Your task to perform on an android device: open the mobile data screen to see how much data has been used Image 0: 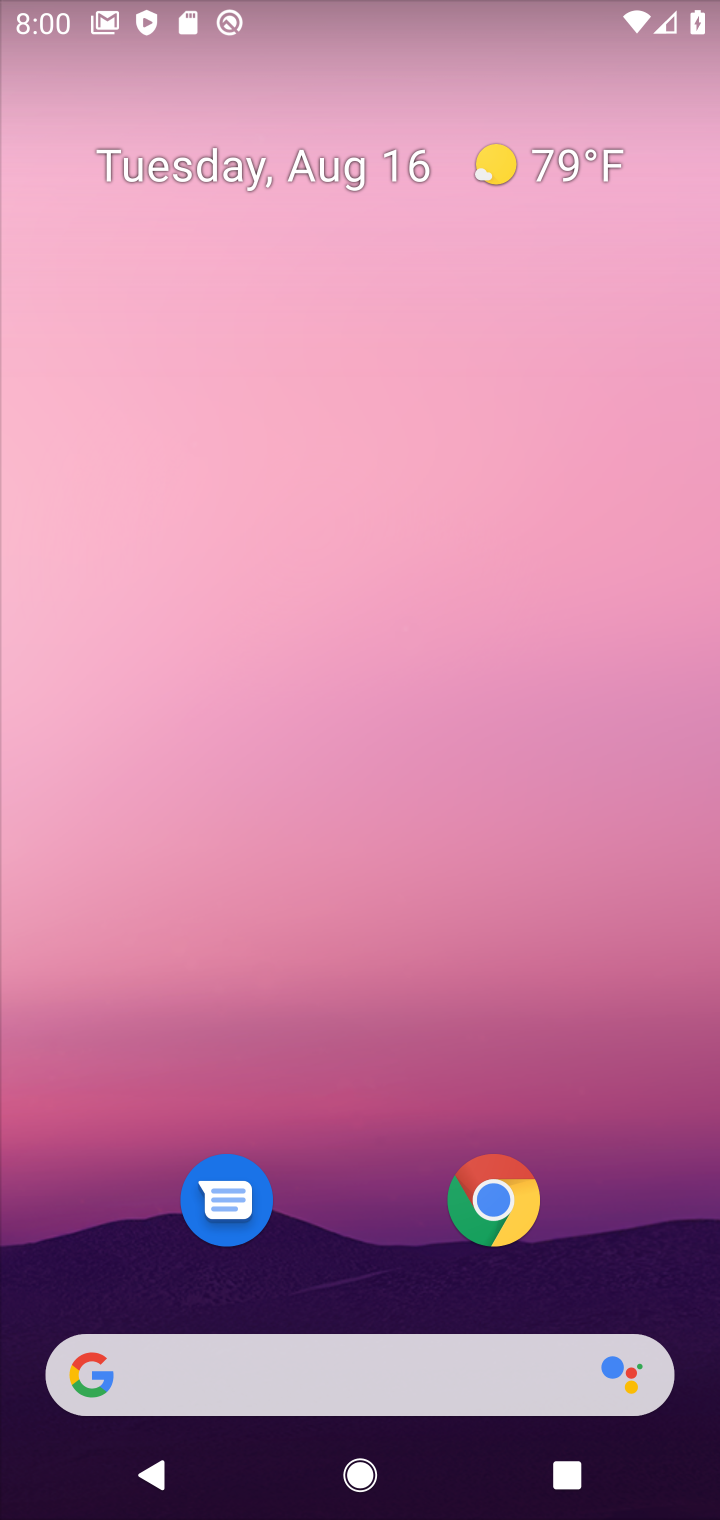
Step 0: drag from (684, 1279) to (615, 261)
Your task to perform on an android device: open the mobile data screen to see how much data has been used Image 1: 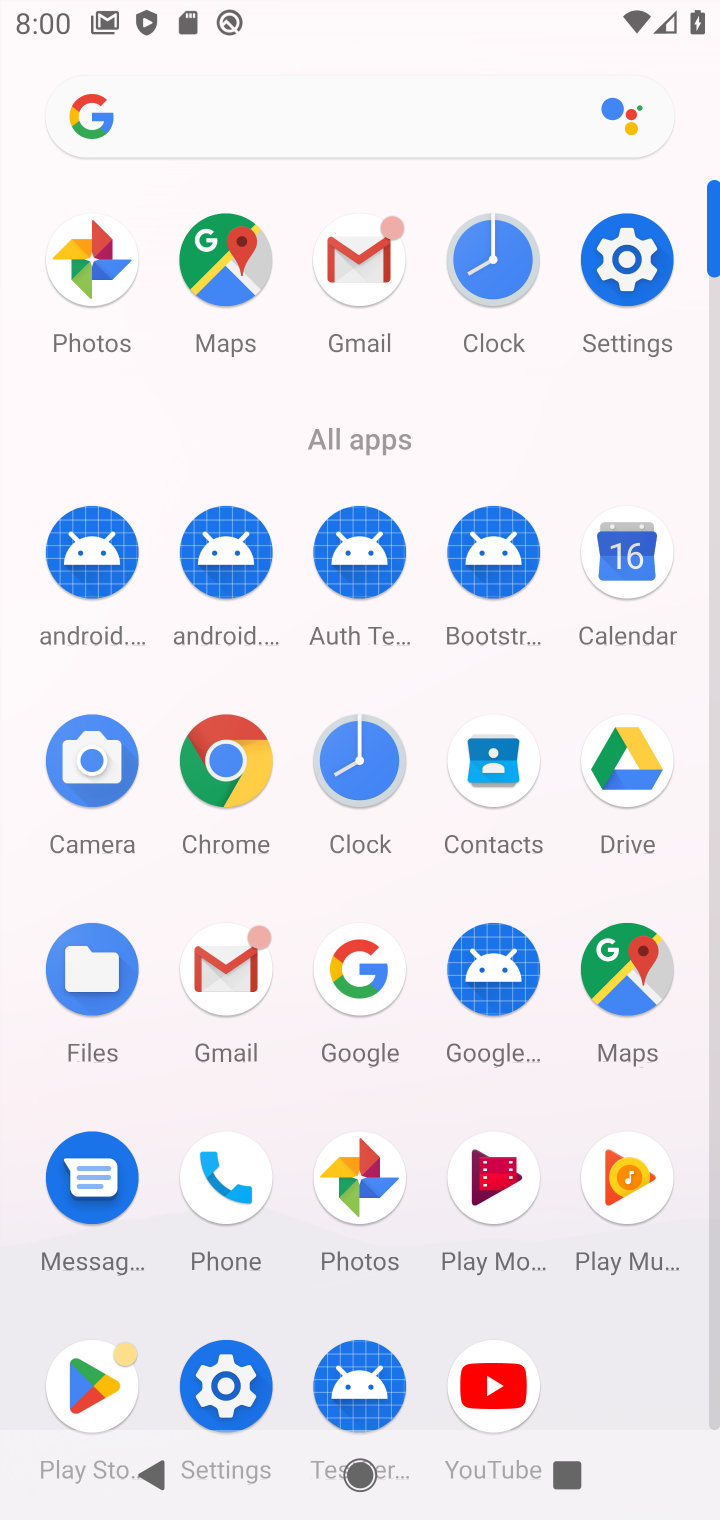
Step 1: click (218, 1386)
Your task to perform on an android device: open the mobile data screen to see how much data has been used Image 2: 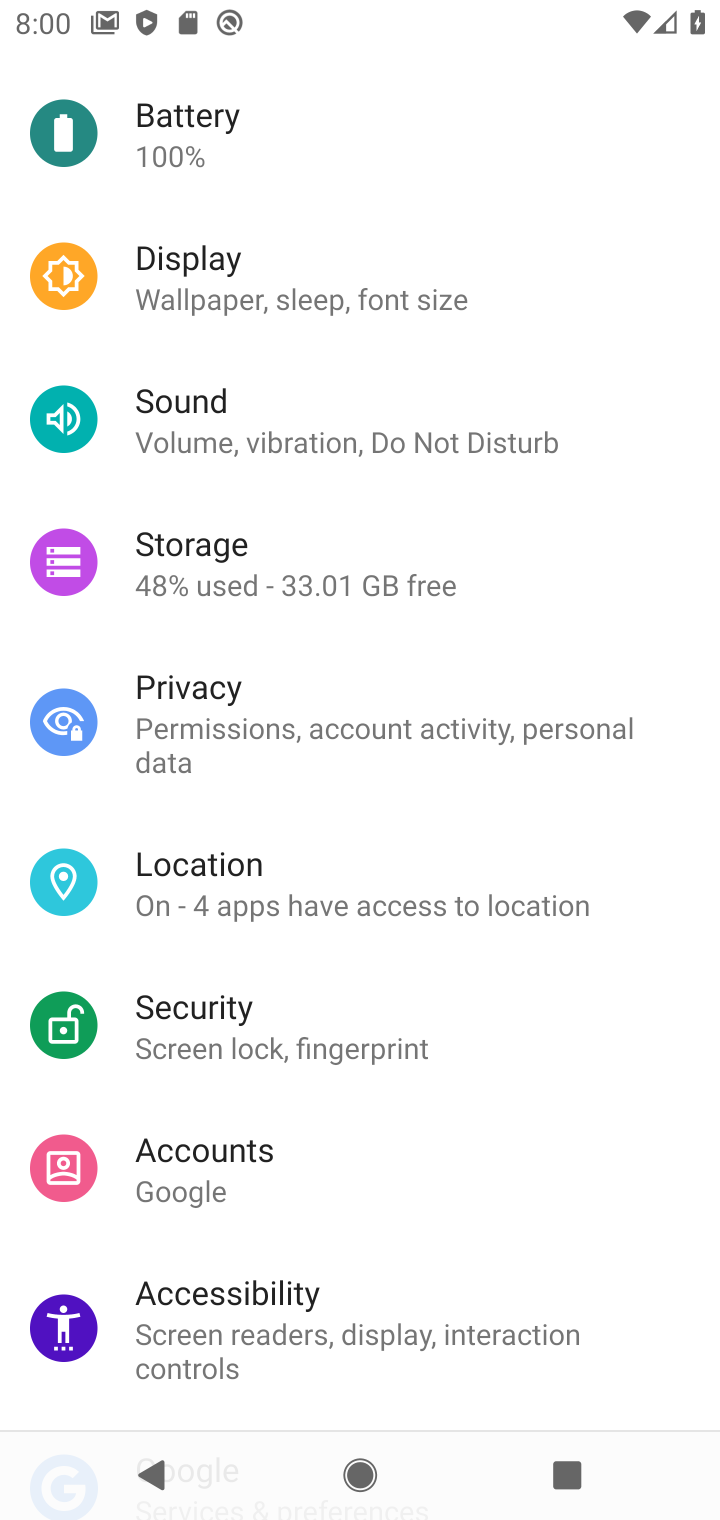
Step 2: drag from (583, 472) to (577, 1076)
Your task to perform on an android device: open the mobile data screen to see how much data has been used Image 3: 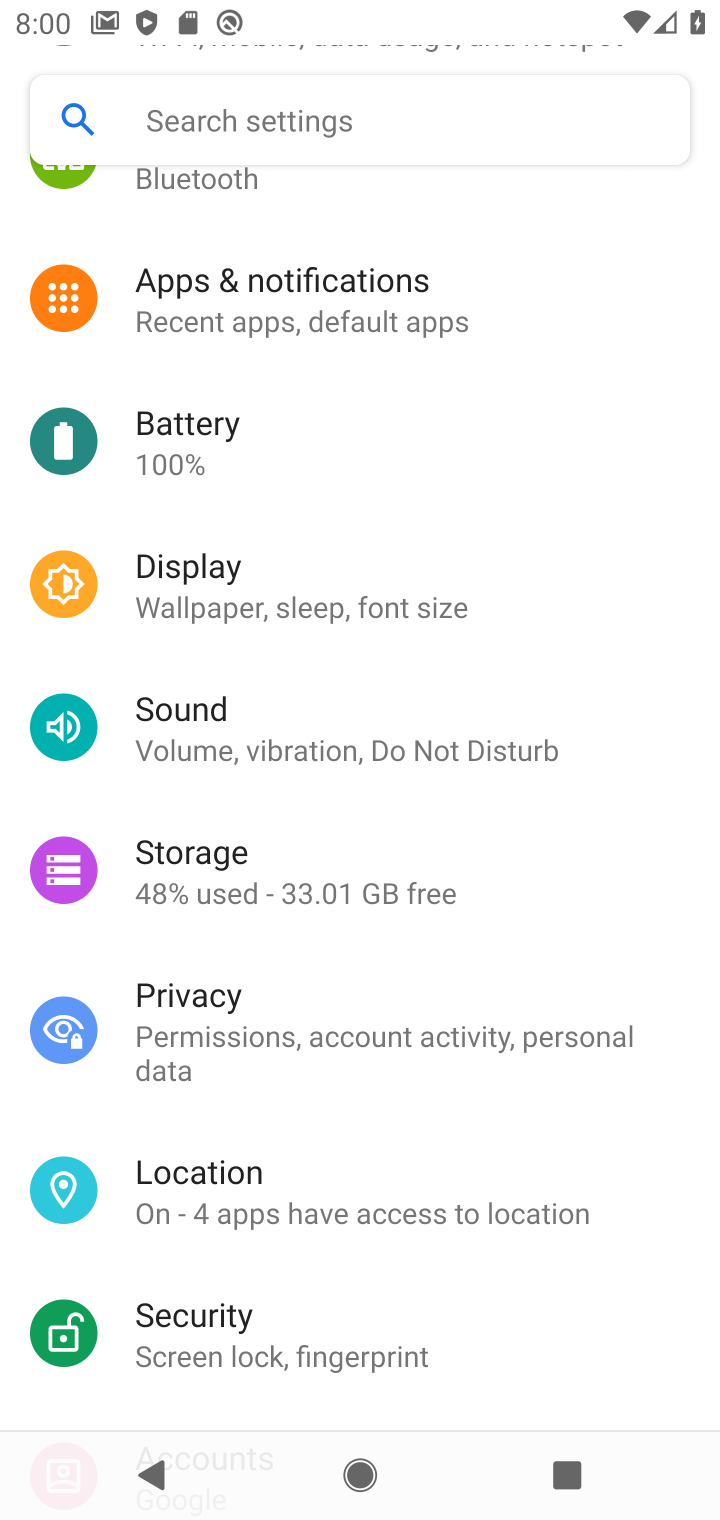
Step 3: drag from (538, 380) to (540, 1034)
Your task to perform on an android device: open the mobile data screen to see how much data has been used Image 4: 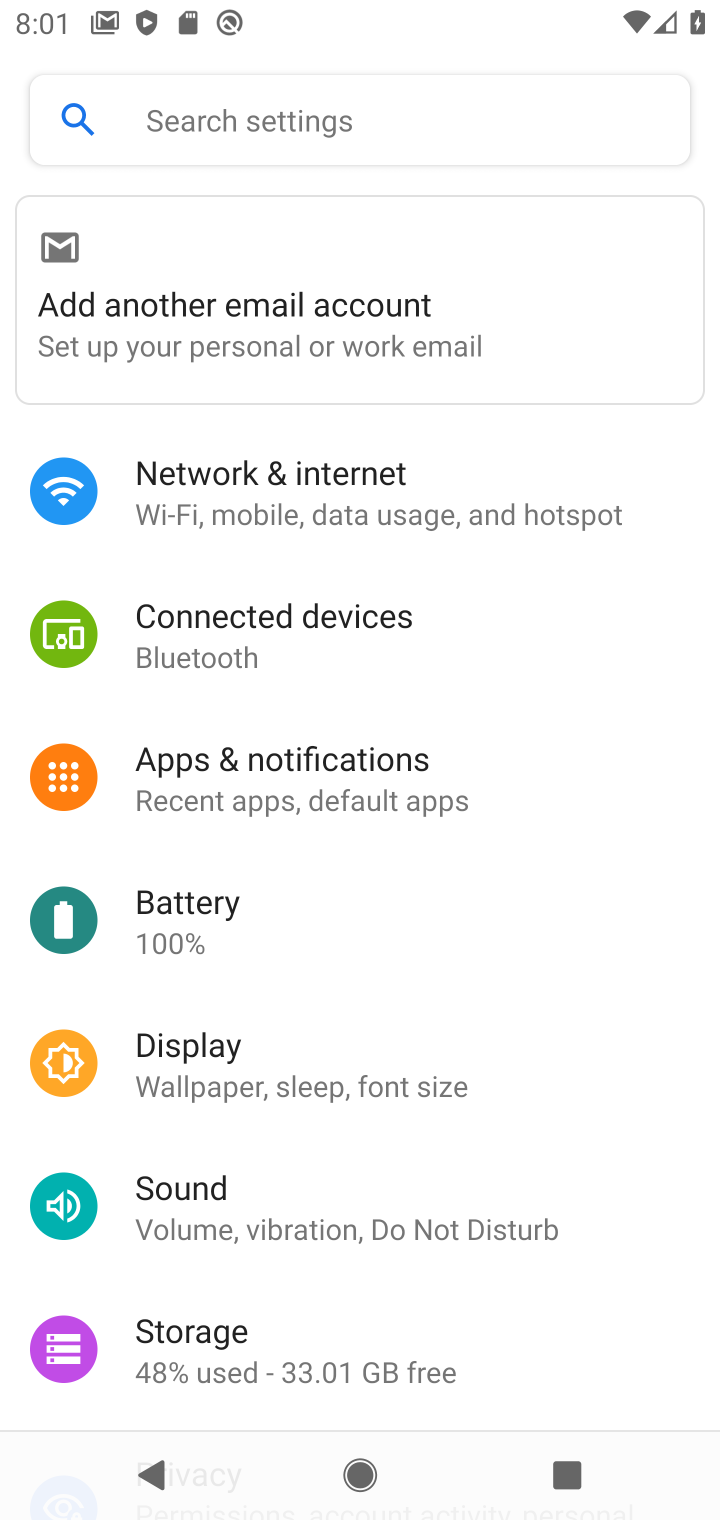
Step 4: click (219, 472)
Your task to perform on an android device: open the mobile data screen to see how much data has been used Image 5: 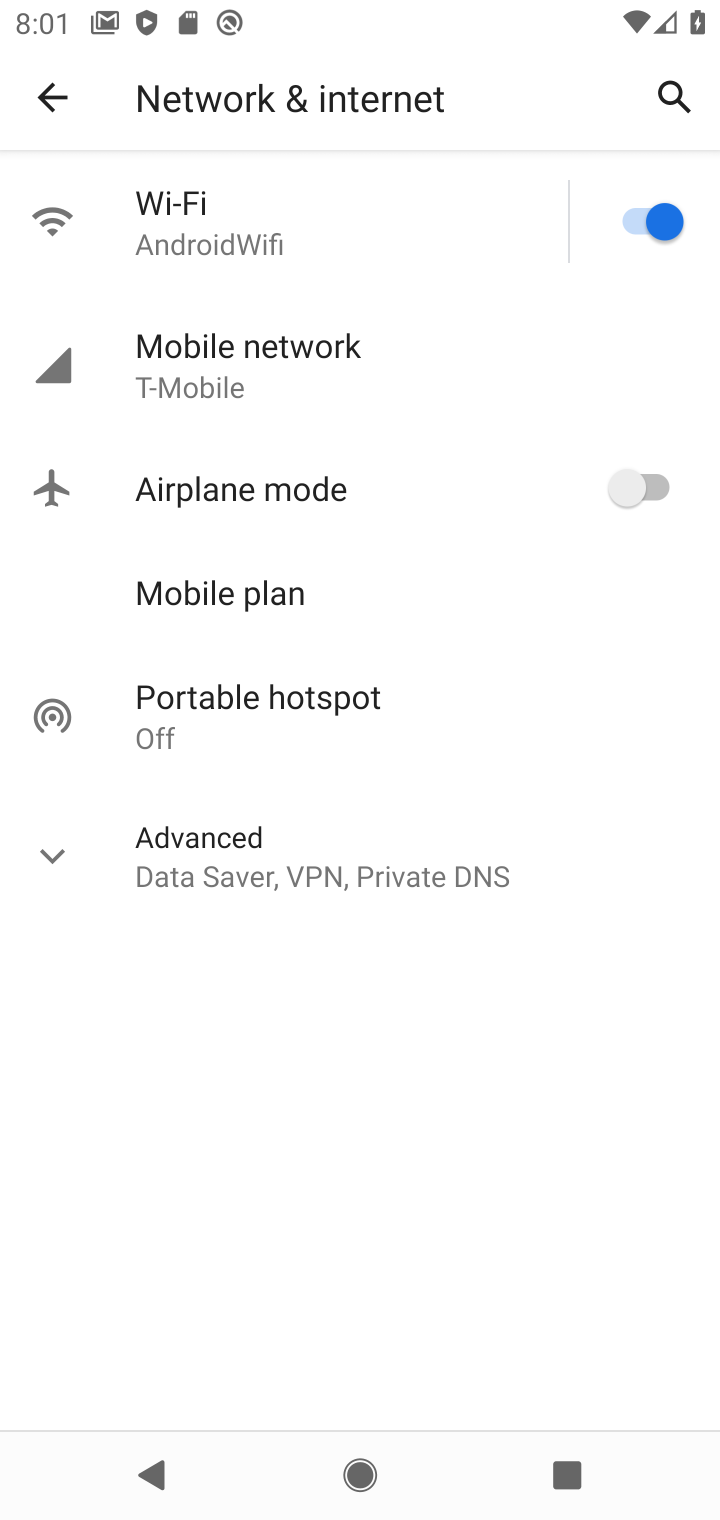
Step 5: click (225, 335)
Your task to perform on an android device: open the mobile data screen to see how much data has been used Image 6: 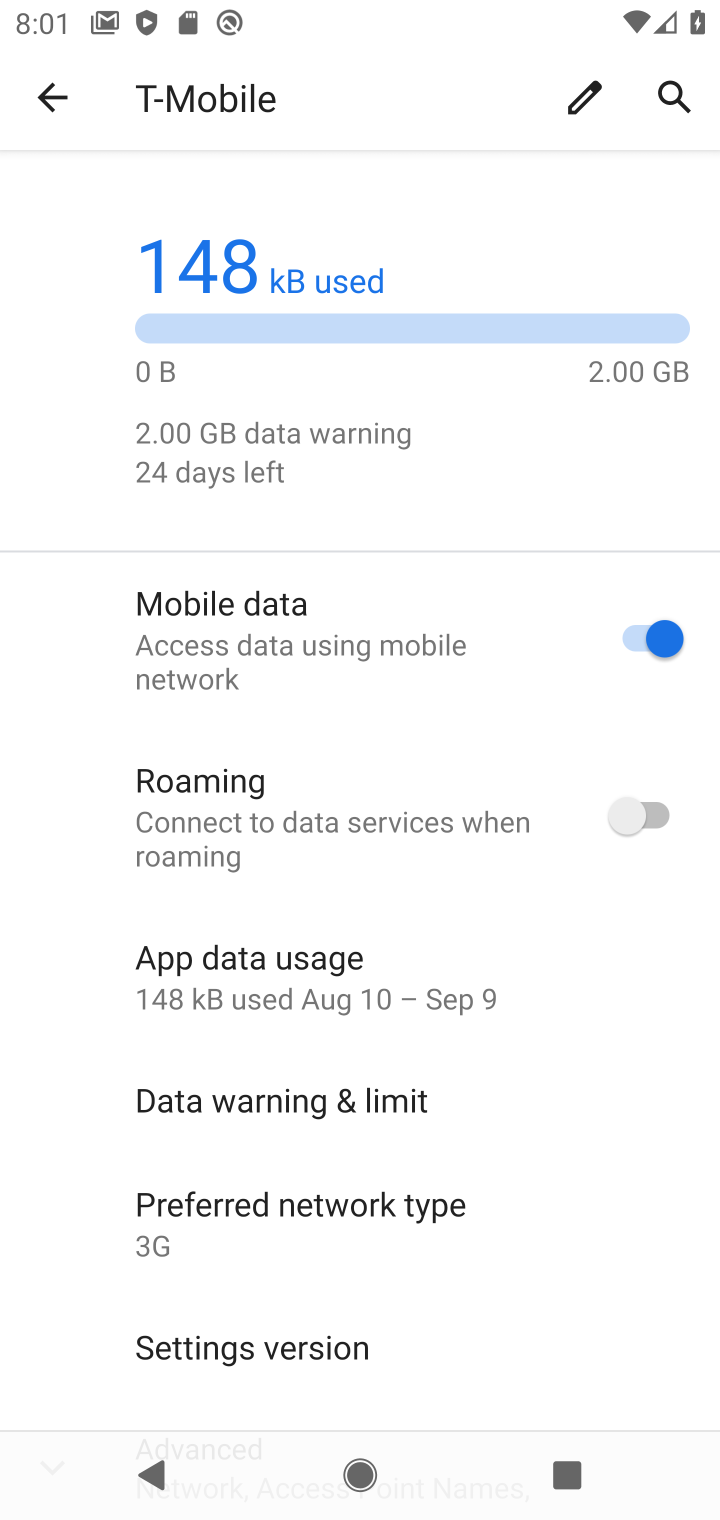
Step 6: task complete